Your task to perform on an android device: turn notification dots off Image 0: 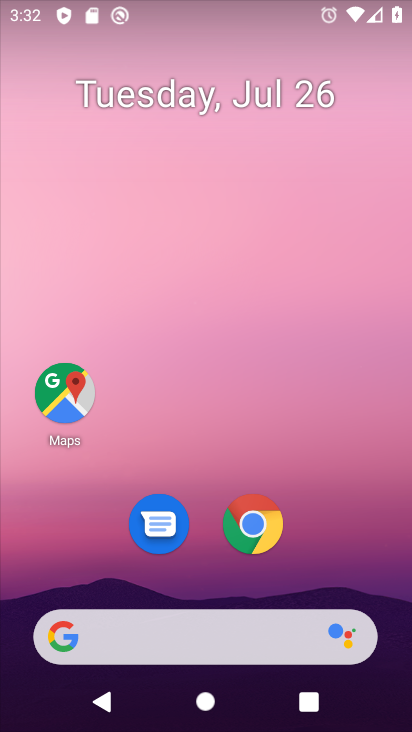
Step 0: drag from (328, 550) to (244, 35)
Your task to perform on an android device: turn notification dots off Image 1: 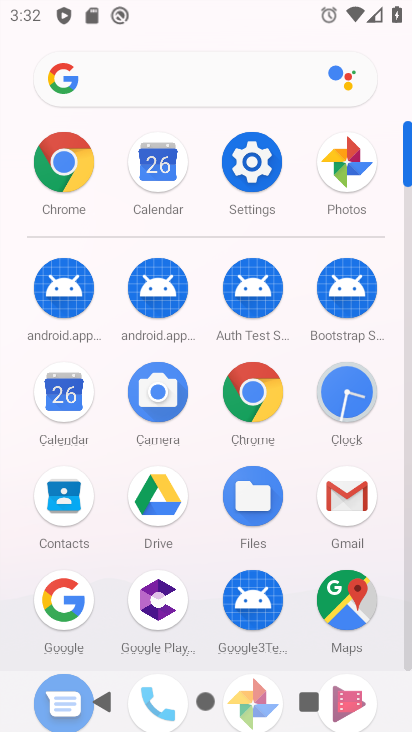
Step 1: click (266, 171)
Your task to perform on an android device: turn notification dots off Image 2: 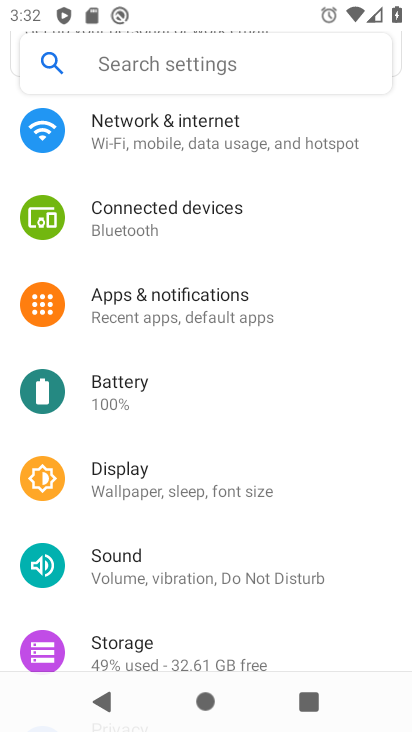
Step 2: click (197, 311)
Your task to perform on an android device: turn notification dots off Image 3: 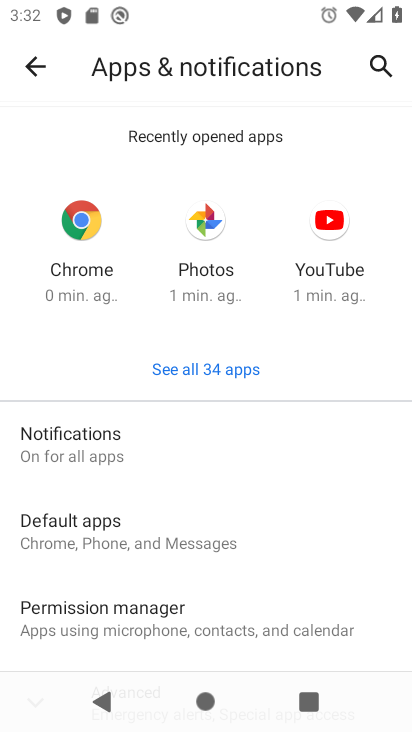
Step 3: click (114, 437)
Your task to perform on an android device: turn notification dots off Image 4: 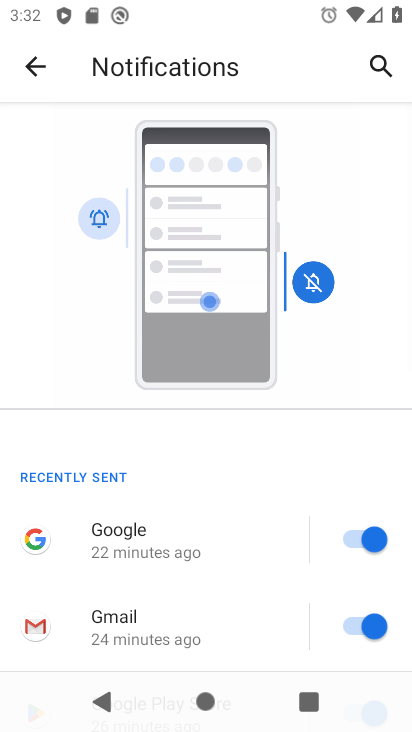
Step 4: drag from (212, 431) to (187, 13)
Your task to perform on an android device: turn notification dots off Image 5: 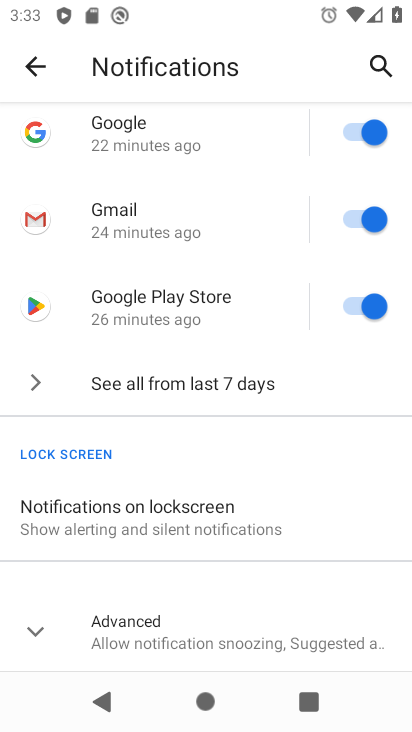
Step 5: click (35, 625)
Your task to perform on an android device: turn notification dots off Image 6: 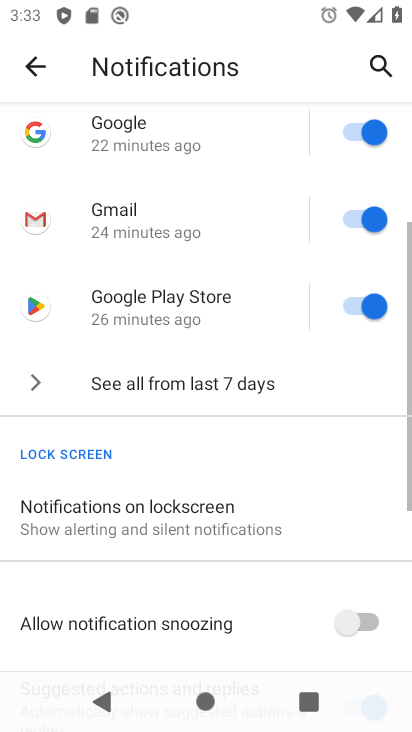
Step 6: task complete